Your task to perform on an android device: Go to ESPN.com Image 0: 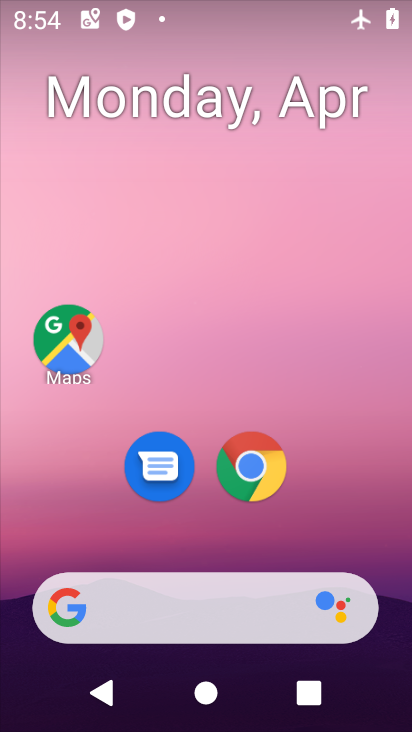
Step 0: click (253, 470)
Your task to perform on an android device: Go to ESPN.com Image 1: 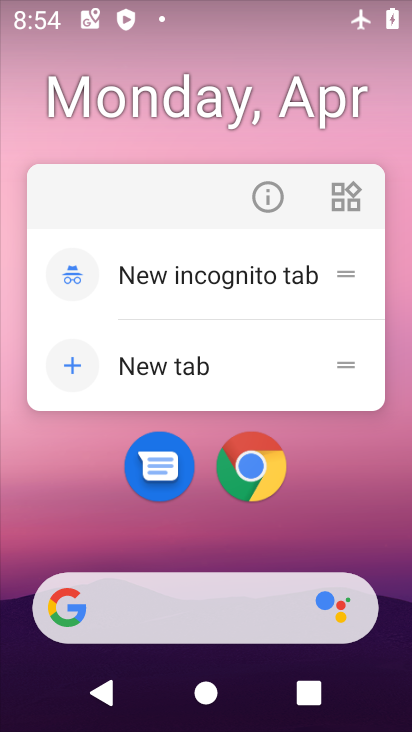
Step 1: click (253, 470)
Your task to perform on an android device: Go to ESPN.com Image 2: 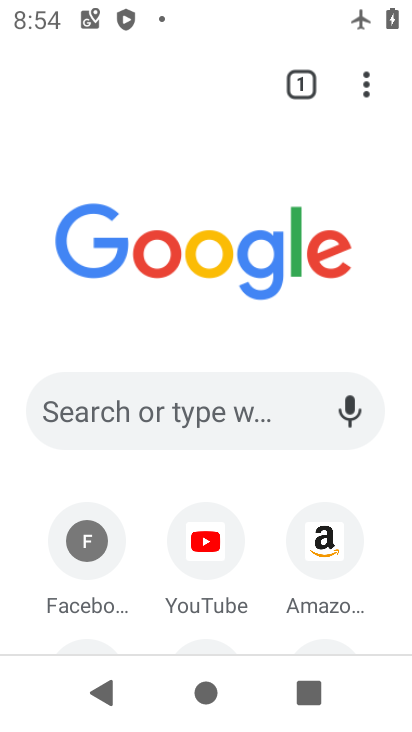
Step 2: click (198, 414)
Your task to perform on an android device: Go to ESPN.com Image 3: 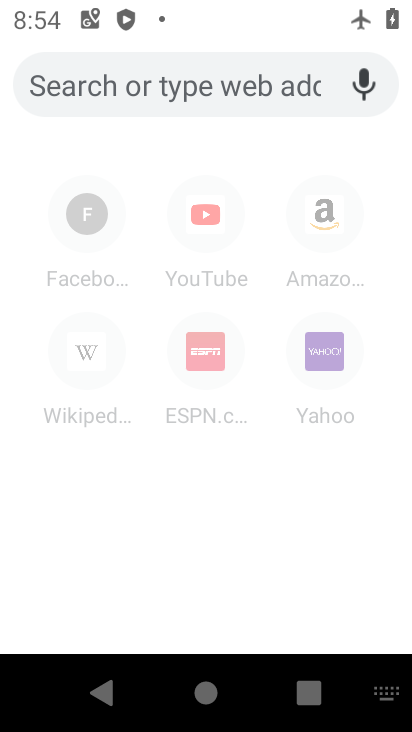
Step 3: click (174, 83)
Your task to perform on an android device: Go to ESPN.com Image 4: 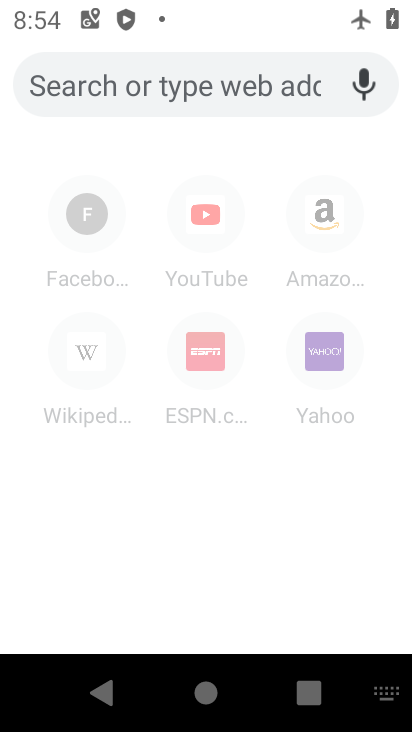
Step 4: type "ESPN.com"
Your task to perform on an android device: Go to ESPN.com Image 5: 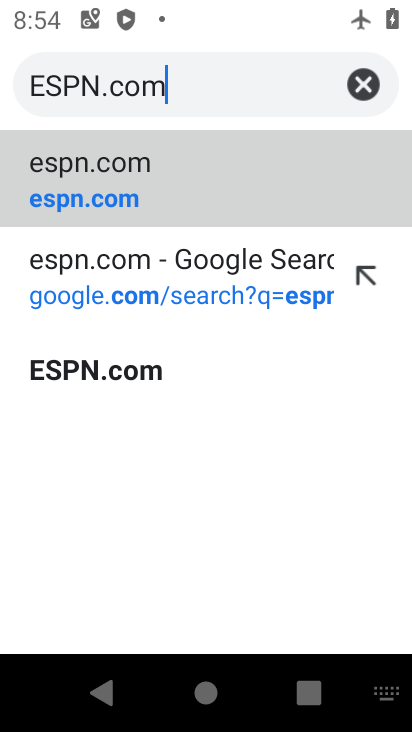
Step 5: type ""
Your task to perform on an android device: Go to ESPN.com Image 6: 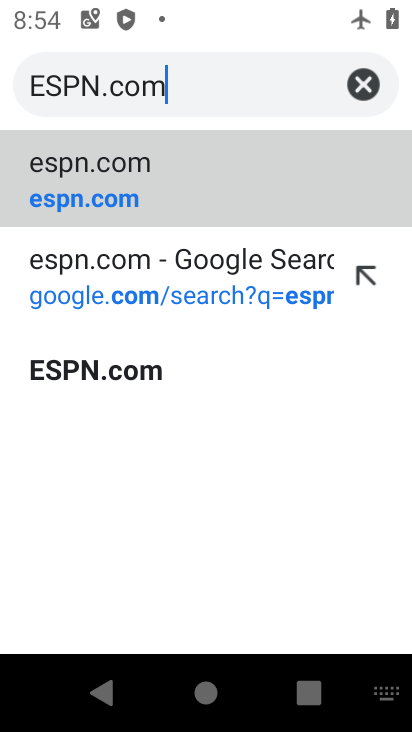
Step 6: click (168, 200)
Your task to perform on an android device: Go to ESPN.com Image 7: 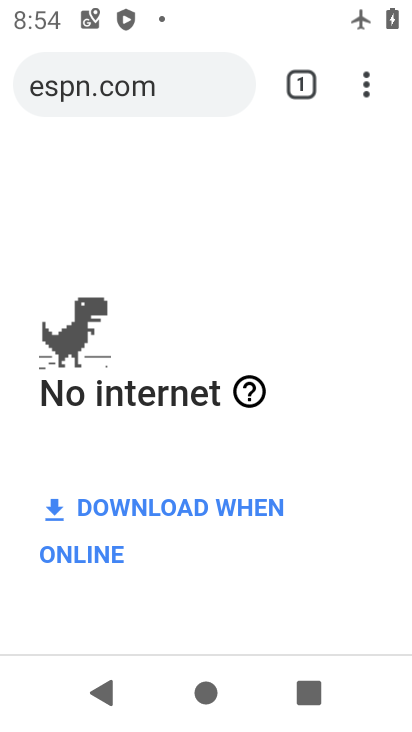
Step 7: task complete